Your task to perform on an android device: visit the assistant section in the google photos Image 0: 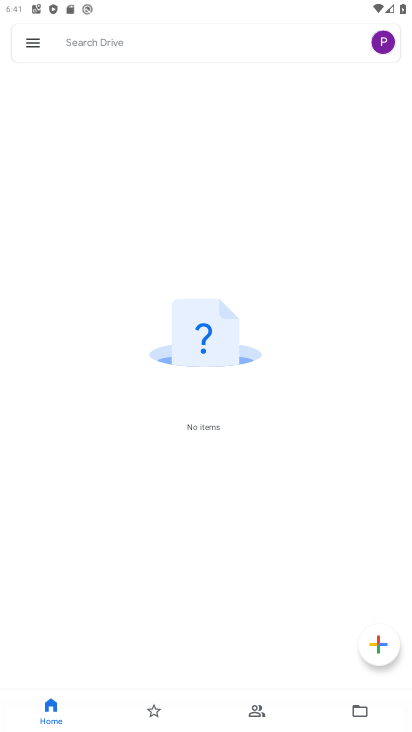
Step 0: press home button
Your task to perform on an android device: visit the assistant section in the google photos Image 1: 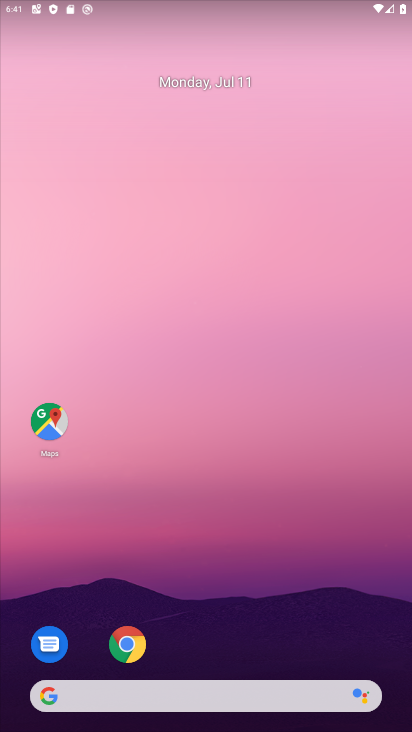
Step 1: drag from (211, 686) to (298, 17)
Your task to perform on an android device: visit the assistant section in the google photos Image 2: 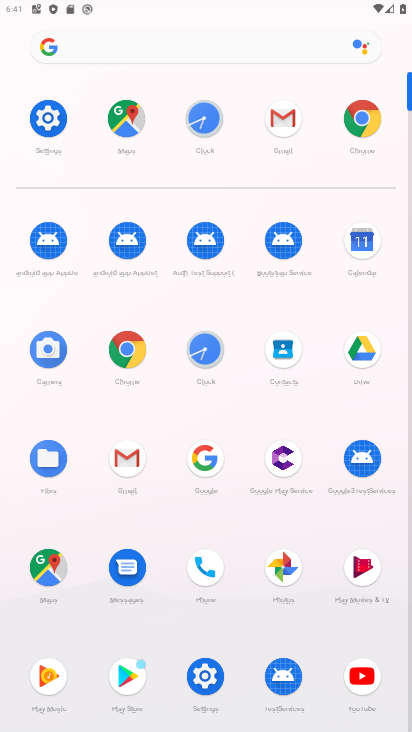
Step 2: click (288, 567)
Your task to perform on an android device: visit the assistant section in the google photos Image 3: 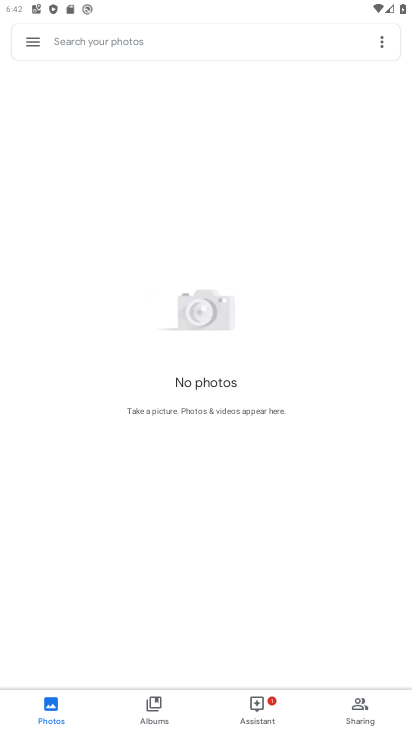
Step 3: click (257, 702)
Your task to perform on an android device: visit the assistant section in the google photos Image 4: 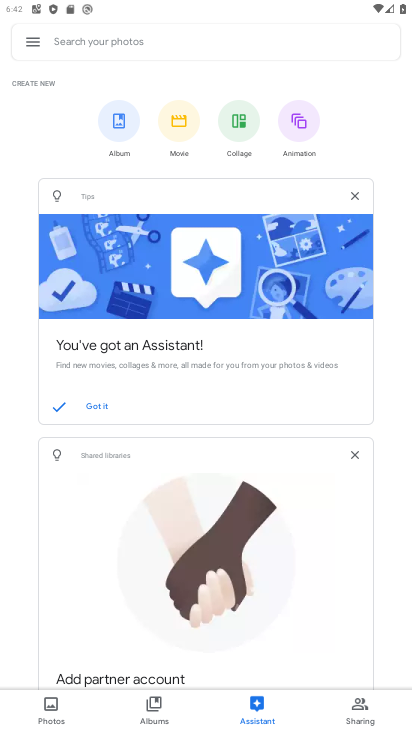
Step 4: task complete